Your task to perform on an android device: change keyboard looks Image 0: 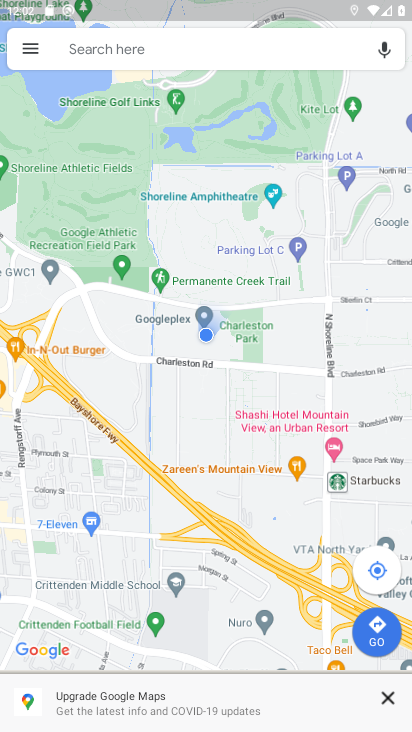
Step 0: drag from (231, 609) to (317, 19)
Your task to perform on an android device: change keyboard looks Image 1: 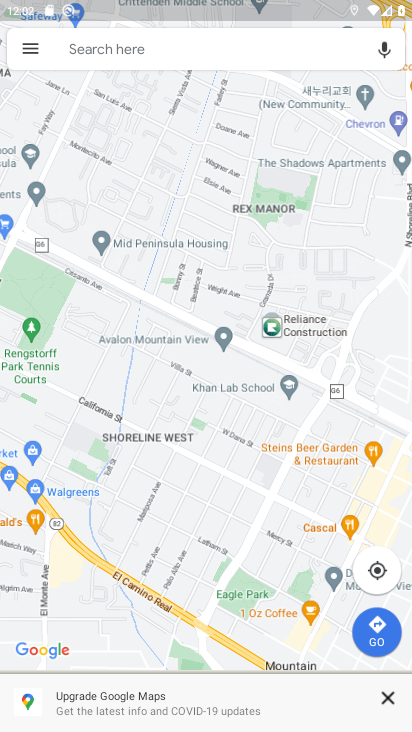
Step 1: press home button
Your task to perform on an android device: change keyboard looks Image 2: 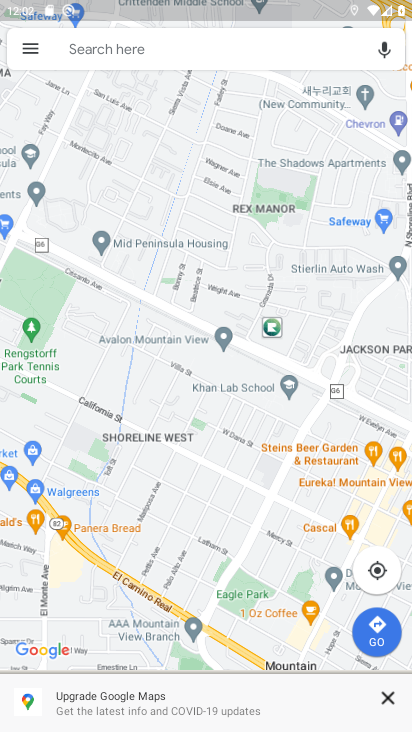
Step 2: drag from (202, 535) to (288, 123)
Your task to perform on an android device: change keyboard looks Image 3: 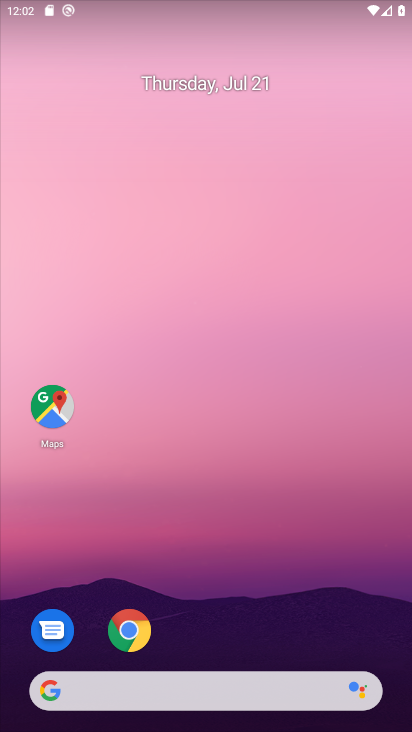
Step 3: drag from (202, 635) to (201, 53)
Your task to perform on an android device: change keyboard looks Image 4: 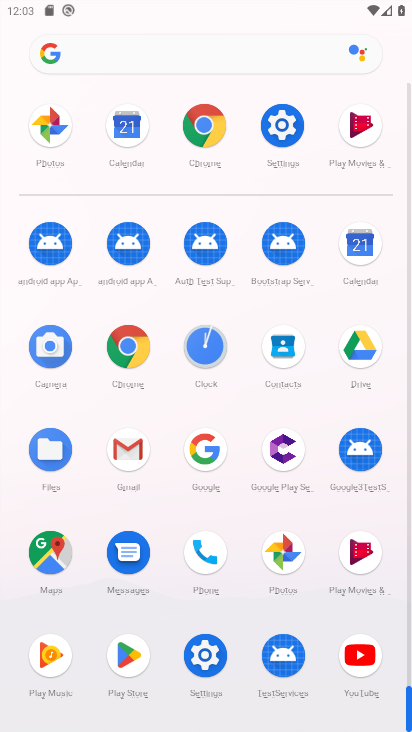
Step 4: click (288, 121)
Your task to perform on an android device: change keyboard looks Image 5: 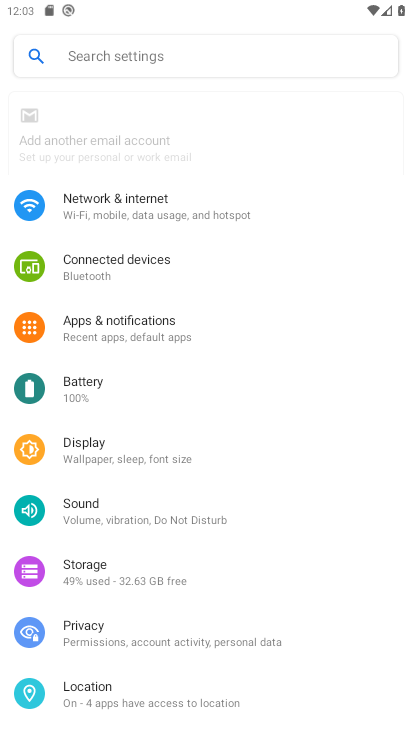
Step 5: drag from (186, 598) to (285, 108)
Your task to perform on an android device: change keyboard looks Image 6: 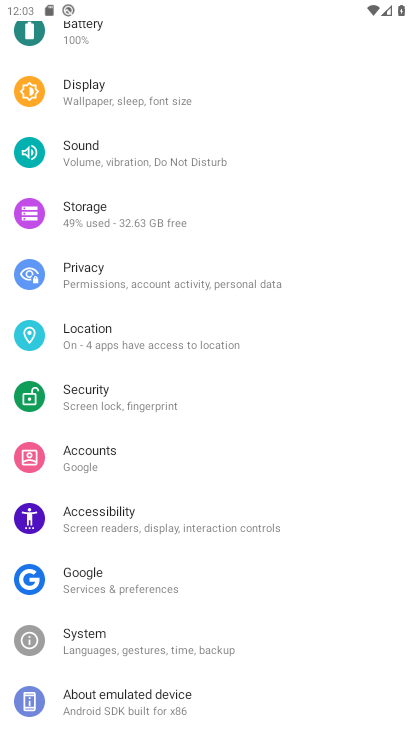
Step 6: click (129, 630)
Your task to perform on an android device: change keyboard looks Image 7: 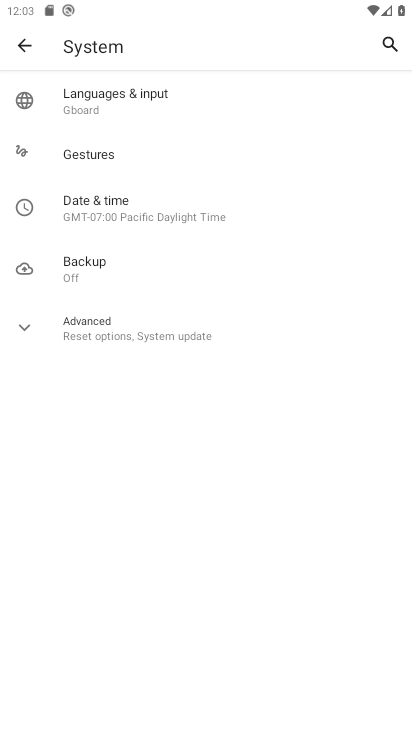
Step 7: click (133, 108)
Your task to perform on an android device: change keyboard looks Image 8: 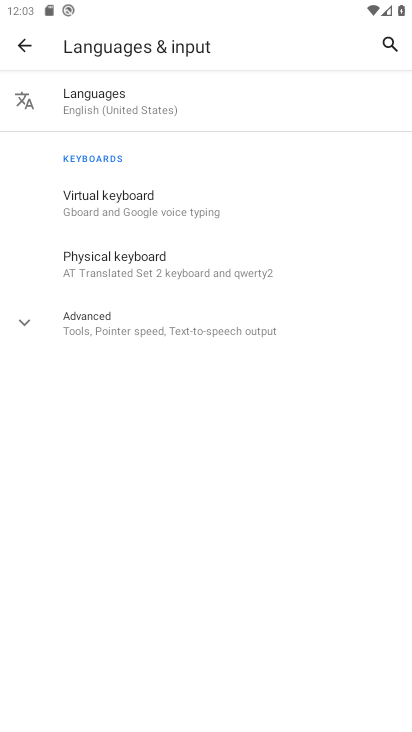
Step 8: click (119, 195)
Your task to perform on an android device: change keyboard looks Image 9: 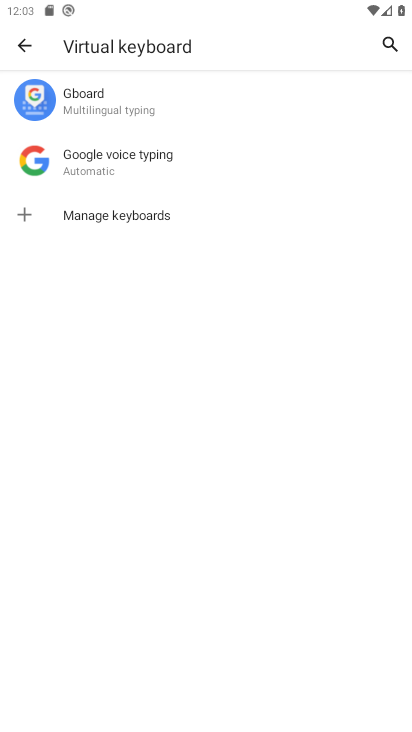
Step 9: click (115, 107)
Your task to perform on an android device: change keyboard looks Image 10: 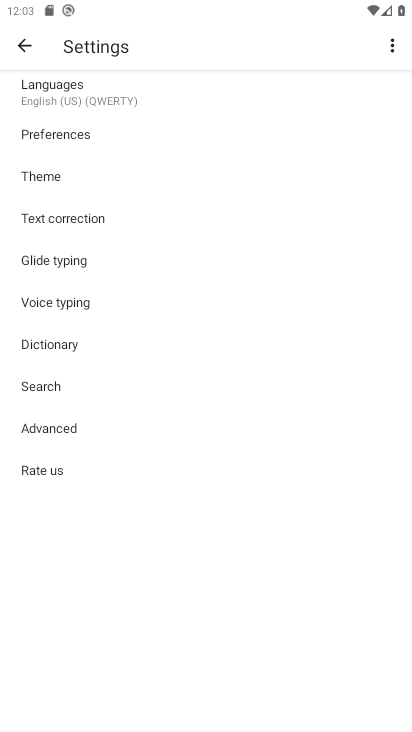
Step 10: drag from (198, 524) to (220, 106)
Your task to perform on an android device: change keyboard looks Image 11: 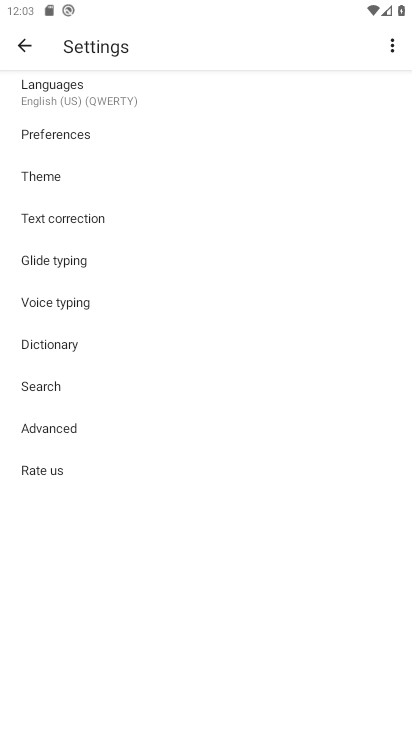
Step 11: click (45, 180)
Your task to perform on an android device: change keyboard looks Image 12: 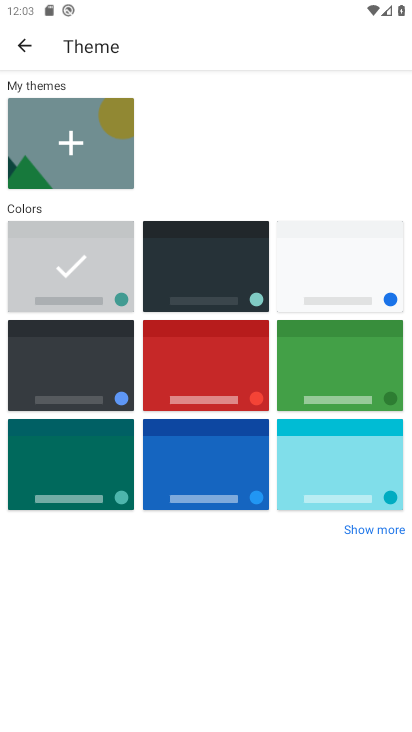
Step 12: drag from (238, 653) to (281, 108)
Your task to perform on an android device: change keyboard looks Image 13: 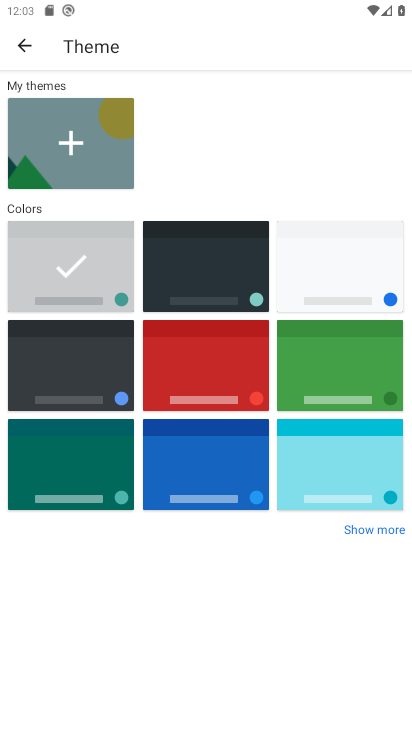
Step 13: click (240, 246)
Your task to perform on an android device: change keyboard looks Image 14: 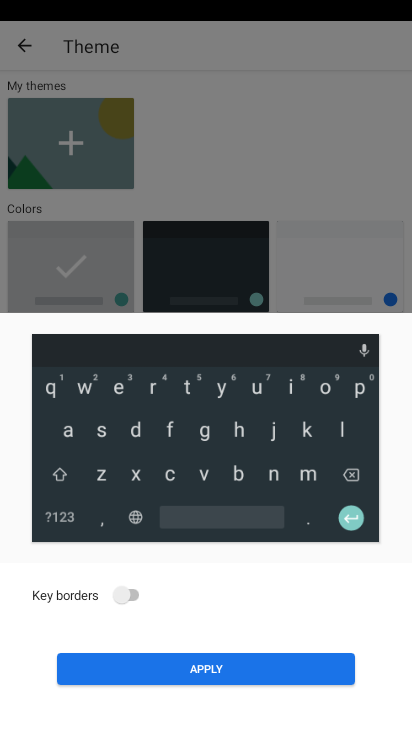
Step 14: click (194, 669)
Your task to perform on an android device: change keyboard looks Image 15: 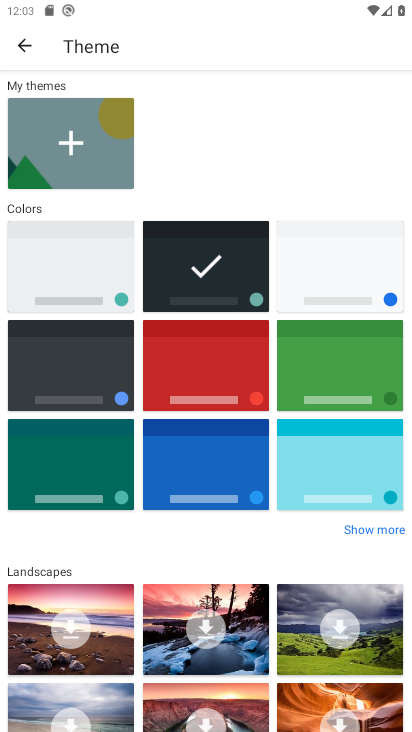
Step 15: task complete